Your task to perform on an android device: turn off smart reply in the gmail app Image 0: 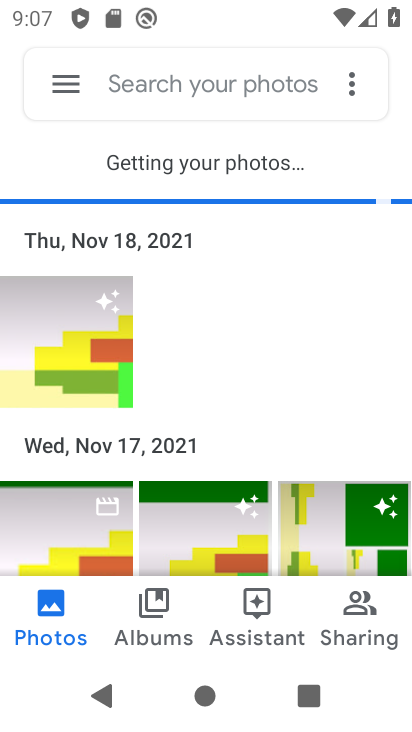
Step 0: press home button
Your task to perform on an android device: turn off smart reply in the gmail app Image 1: 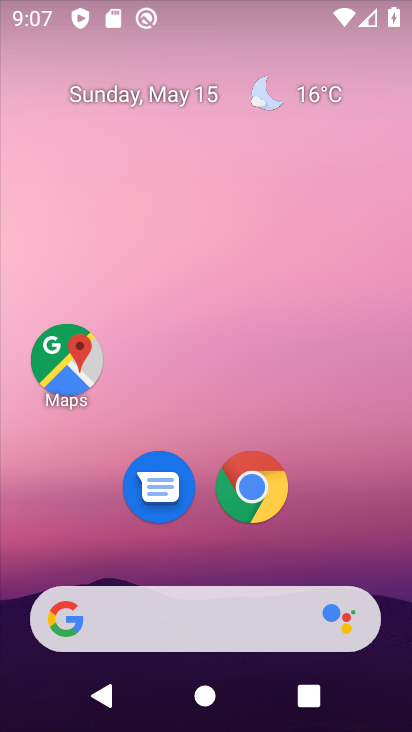
Step 1: drag from (326, 514) to (318, 172)
Your task to perform on an android device: turn off smart reply in the gmail app Image 2: 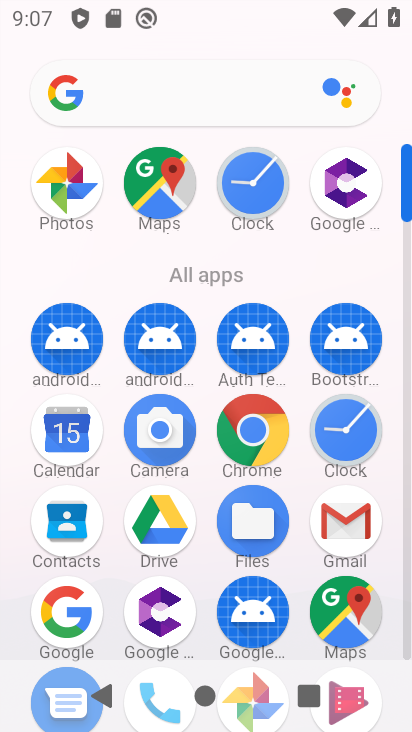
Step 2: click (341, 514)
Your task to perform on an android device: turn off smart reply in the gmail app Image 3: 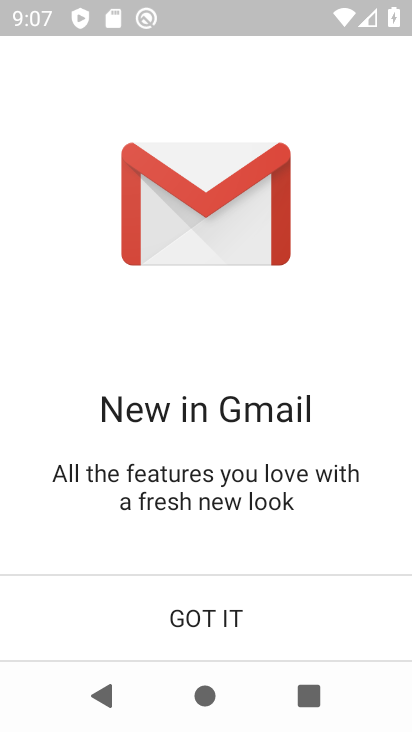
Step 3: click (228, 606)
Your task to perform on an android device: turn off smart reply in the gmail app Image 4: 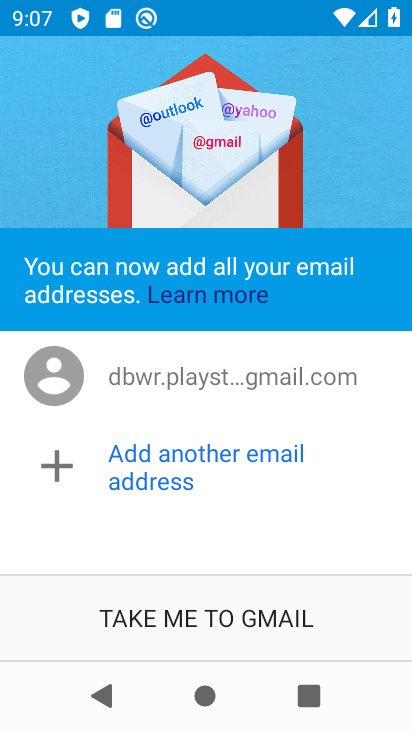
Step 4: click (228, 606)
Your task to perform on an android device: turn off smart reply in the gmail app Image 5: 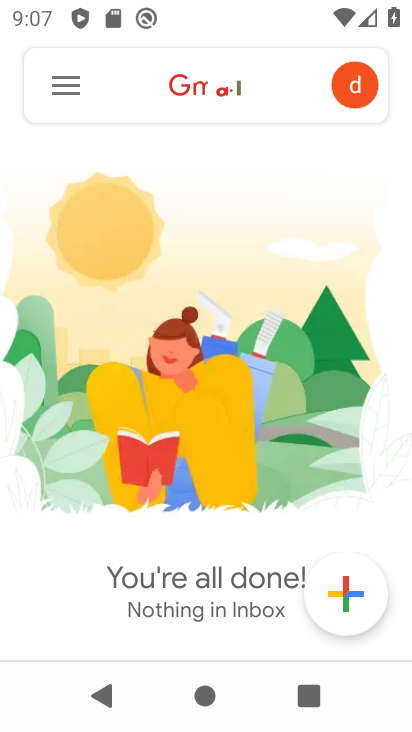
Step 5: click (51, 82)
Your task to perform on an android device: turn off smart reply in the gmail app Image 6: 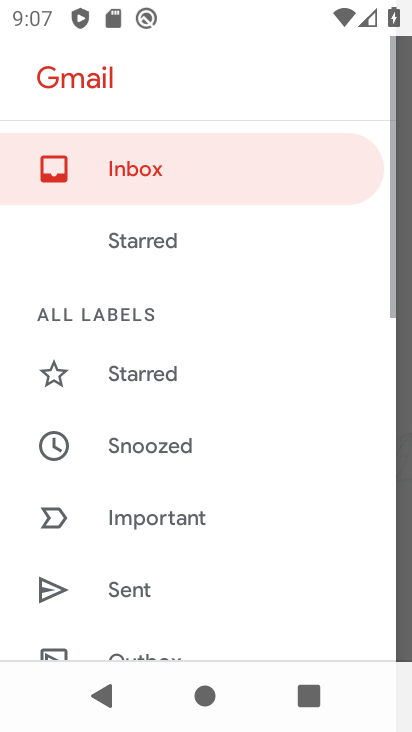
Step 6: drag from (162, 626) to (215, 255)
Your task to perform on an android device: turn off smart reply in the gmail app Image 7: 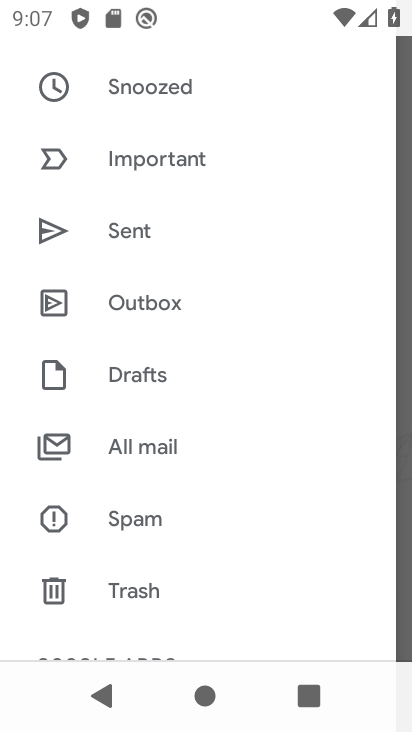
Step 7: drag from (217, 628) to (295, 265)
Your task to perform on an android device: turn off smart reply in the gmail app Image 8: 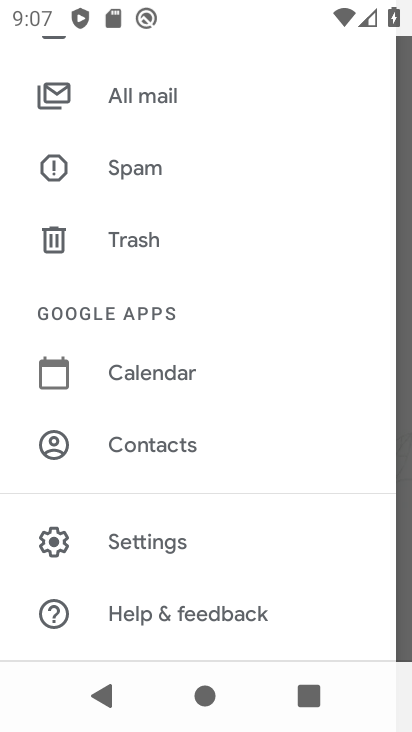
Step 8: click (191, 545)
Your task to perform on an android device: turn off smart reply in the gmail app Image 9: 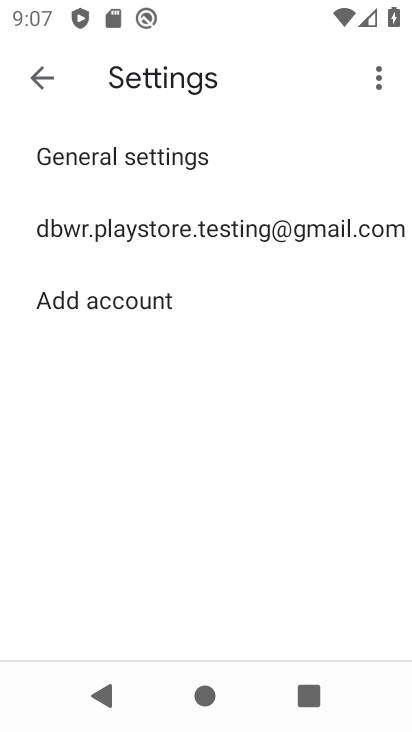
Step 9: click (238, 219)
Your task to perform on an android device: turn off smart reply in the gmail app Image 10: 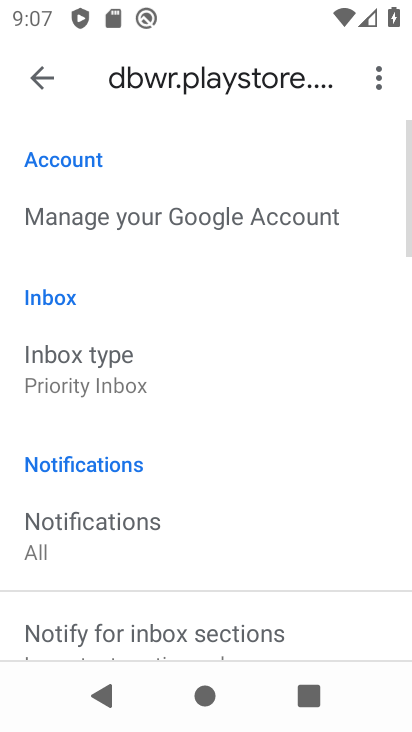
Step 10: drag from (269, 528) to (256, 185)
Your task to perform on an android device: turn off smart reply in the gmail app Image 11: 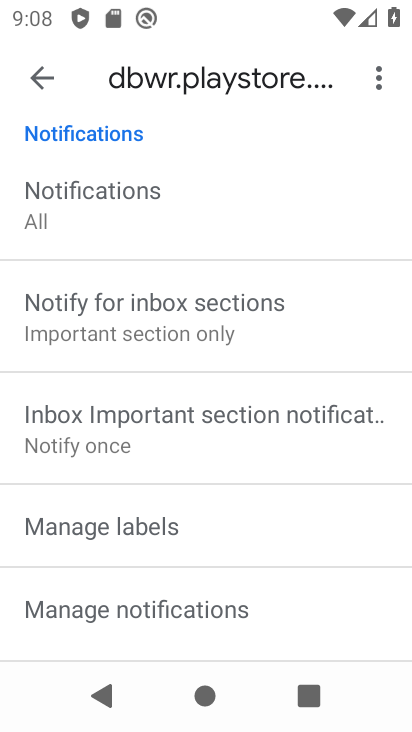
Step 11: drag from (275, 545) to (271, 248)
Your task to perform on an android device: turn off smart reply in the gmail app Image 12: 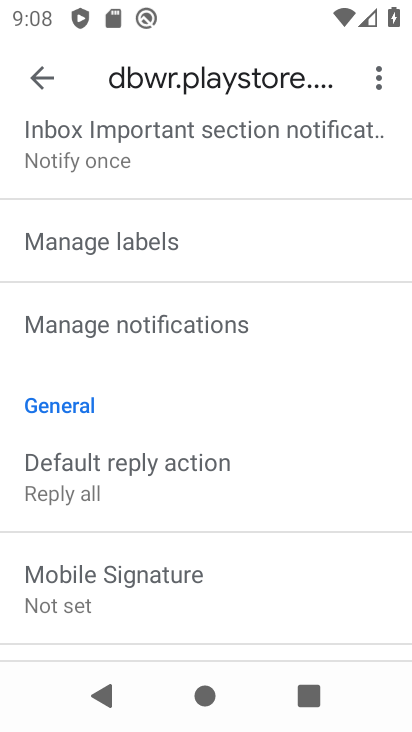
Step 12: drag from (264, 607) to (316, 314)
Your task to perform on an android device: turn off smart reply in the gmail app Image 13: 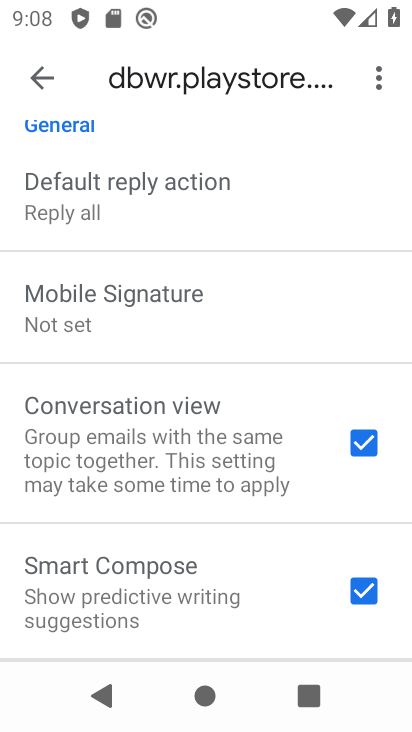
Step 13: drag from (245, 560) to (245, 309)
Your task to perform on an android device: turn off smart reply in the gmail app Image 14: 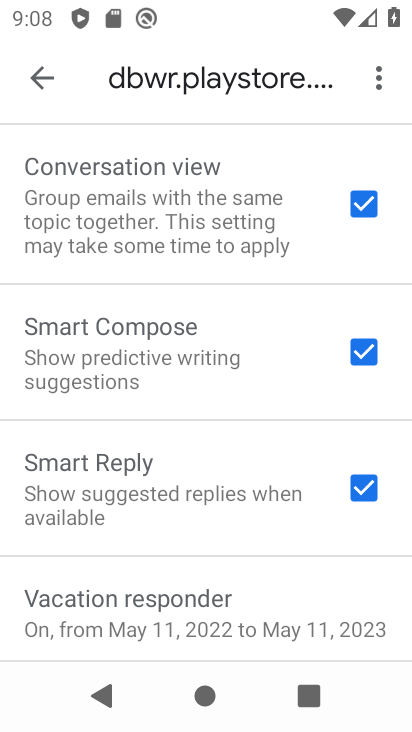
Step 14: click (357, 489)
Your task to perform on an android device: turn off smart reply in the gmail app Image 15: 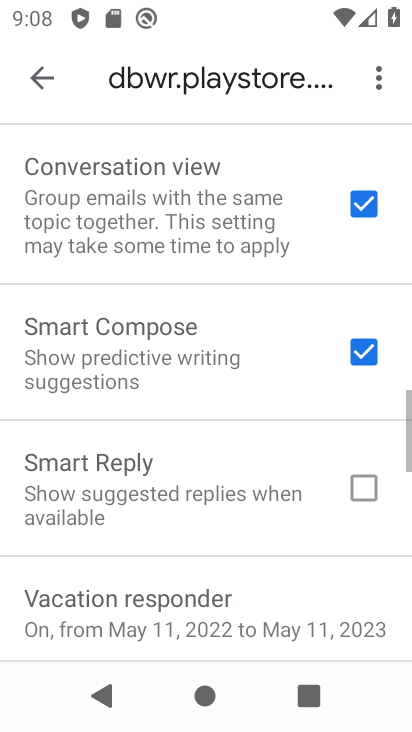
Step 15: task complete